Your task to perform on an android device: turn on javascript in the chrome app Image 0: 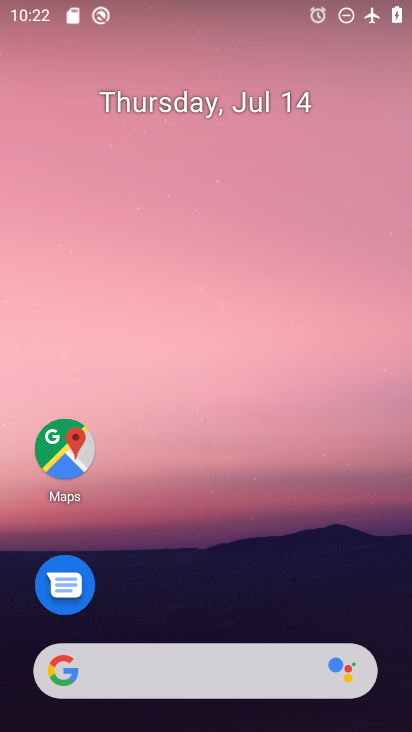
Step 0: drag from (200, 615) to (118, 254)
Your task to perform on an android device: turn on javascript in the chrome app Image 1: 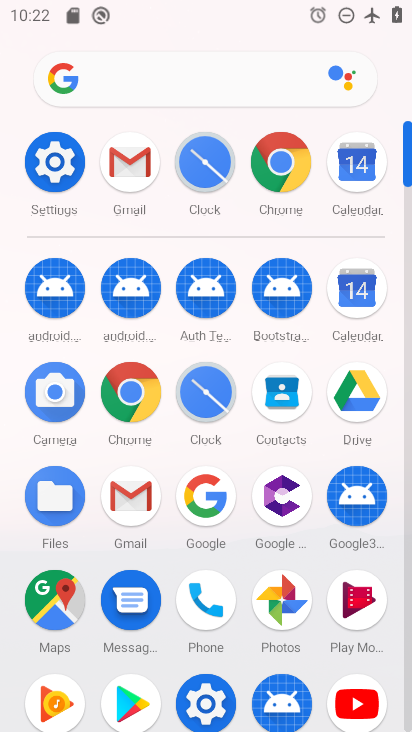
Step 1: click (131, 390)
Your task to perform on an android device: turn on javascript in the chrome app Image 2: 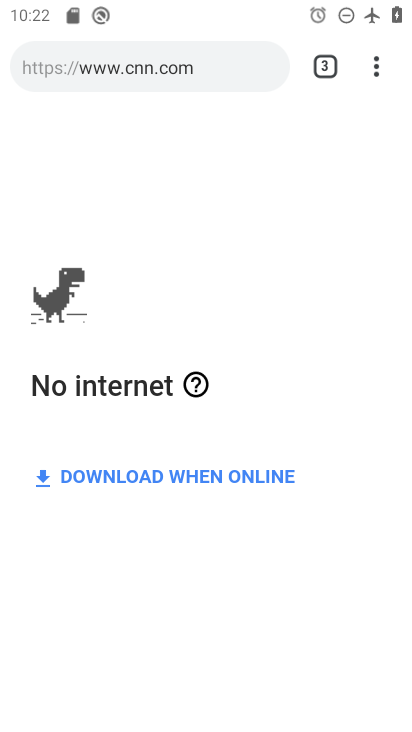
Step 2: click (381, 68)
Your task to perform on an android device: turn on javascript in the chrome app Image 3: 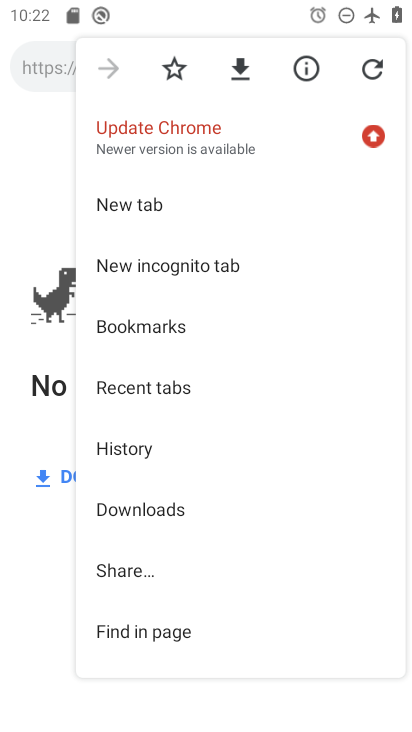
Step 3: drag from (217, 592) to (112, 153)
Your task to perform on an android device: turn on javascript in the chrome app Image 4: 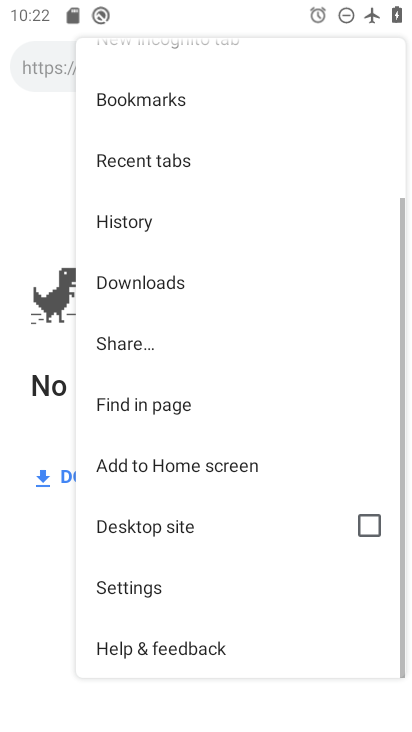
Step 4: click (109, 576)
Your task to perform on an android device: turn on javascript in the chrome app Image 5: 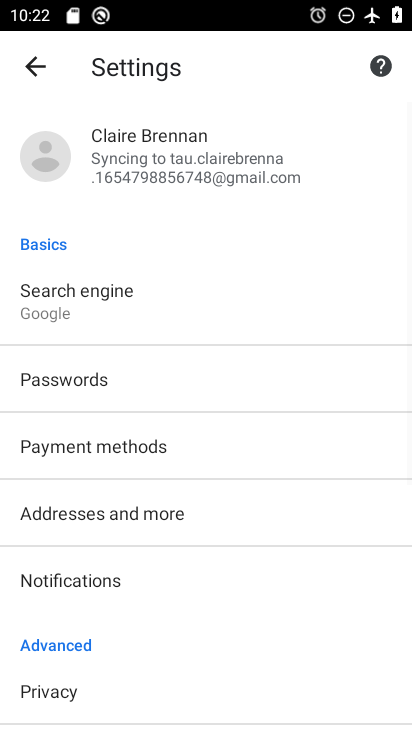
Step 5: drag from (109, 576) to (15, 158)
Your task to perform on an android device: turn on javascript in the chrome app Image 6: 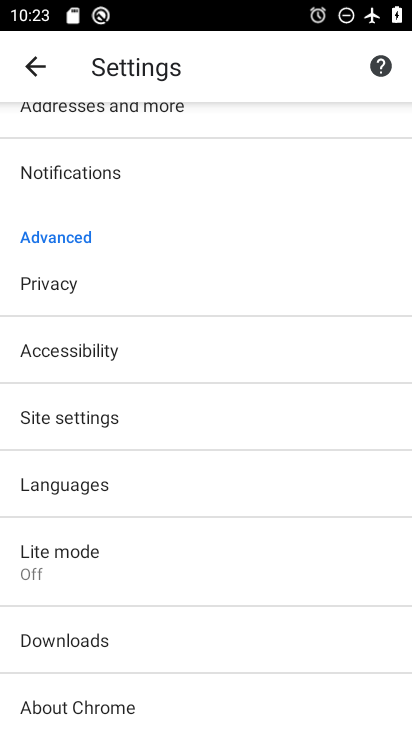
Step 6: click (80, 430)
Your task to perform on an android device: turn on javascript in the chrome app Image 7: 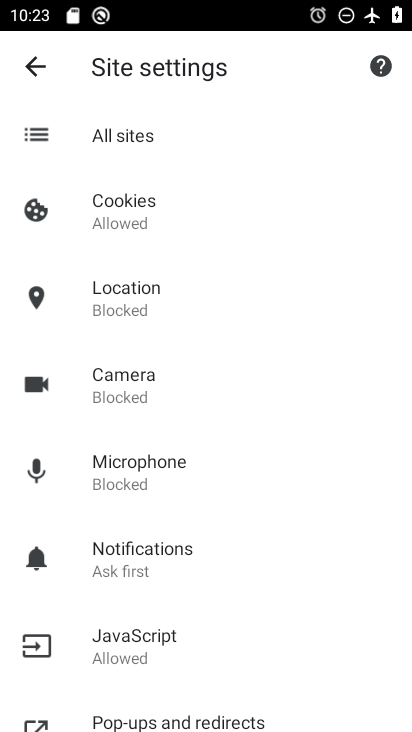
Step 7: click (218, 654)
Your task to perform on an android device: turn on javascript in the chrome app Image 8: 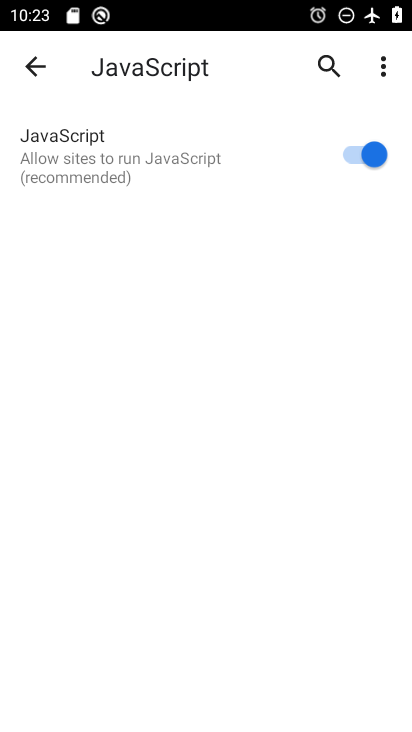
Step 8: task complete